Your task to perform on an android device: add a contact in the contacts app Image 0: 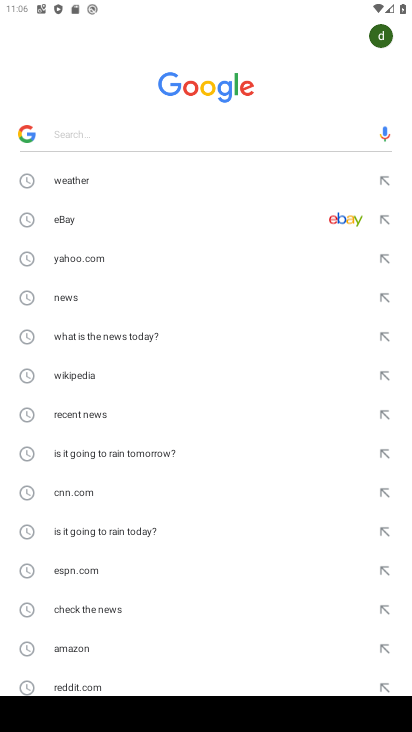
Step 0: press home button
Your task to perform on an android device: add a contact in the contacts app Image 1: 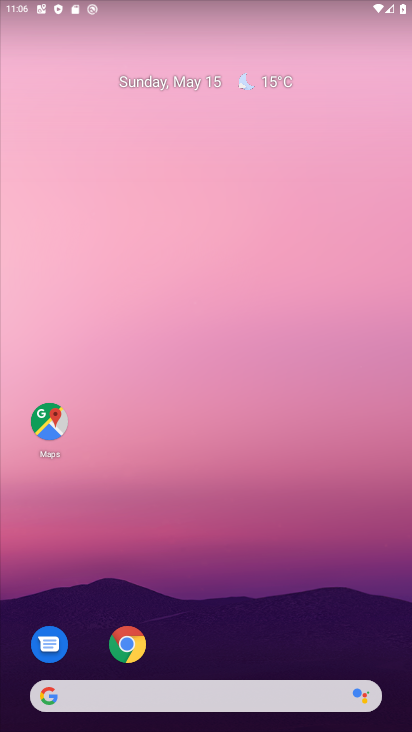
Step 1: drag from (266, 585) to (272, 93)
Your task to perform on an android device: add a contact in the contacts app Image 2: 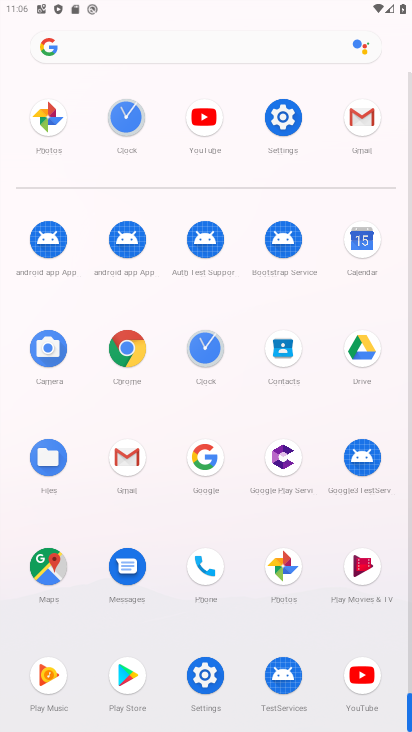
Step 2: click (276, 361)
Your task to perform on an android device: add a contact in the contacts app Image 3: 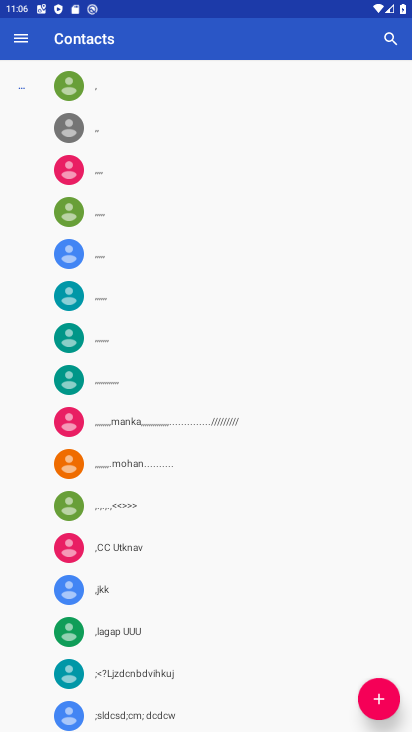
Step 3: click (380, 690)
Your task to perform on an android device: add a contact in the contacts app Image 4: 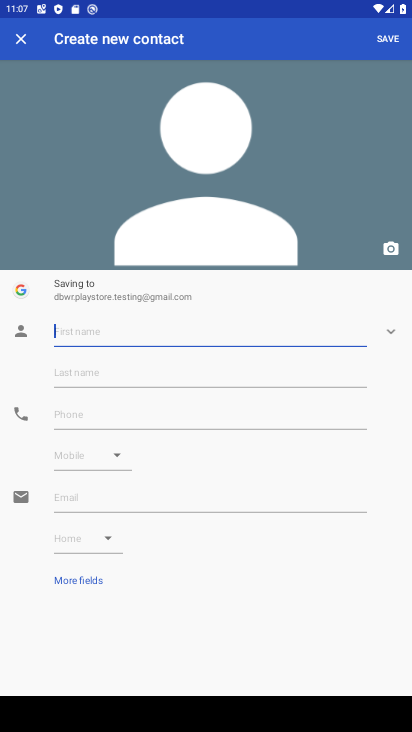
Step 4: type "errerr"
Your task to perform on an android device: add a contact in the contacts app Image 5: 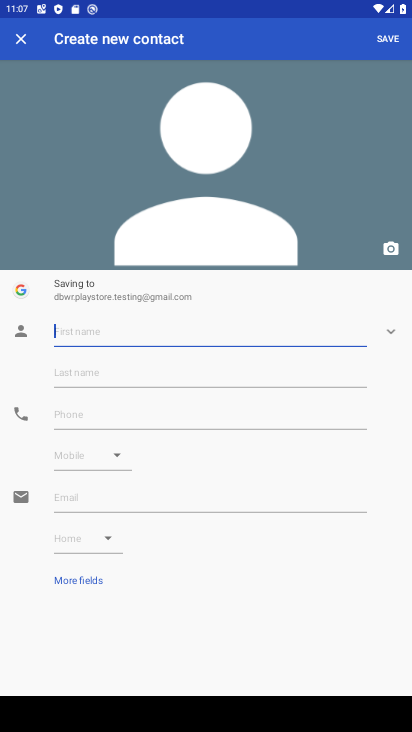
Step 5: click (146, 403)
Your task to perform on an android device: add a contact in the contacts app Image 6: 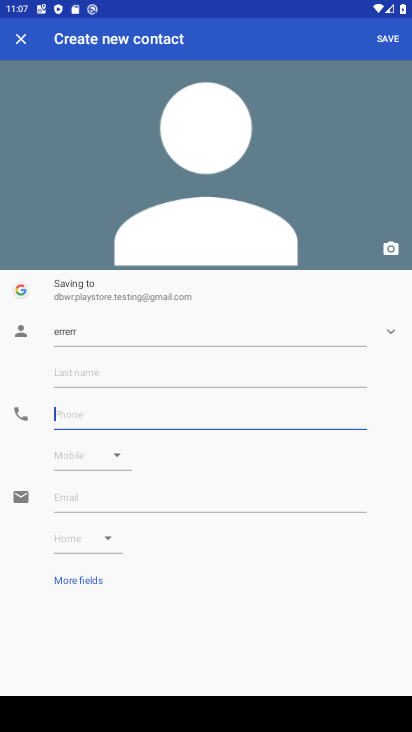
Step 6: type "5555544444"
Your task to perform on an android device: add a contact in the contacts app Image 7: 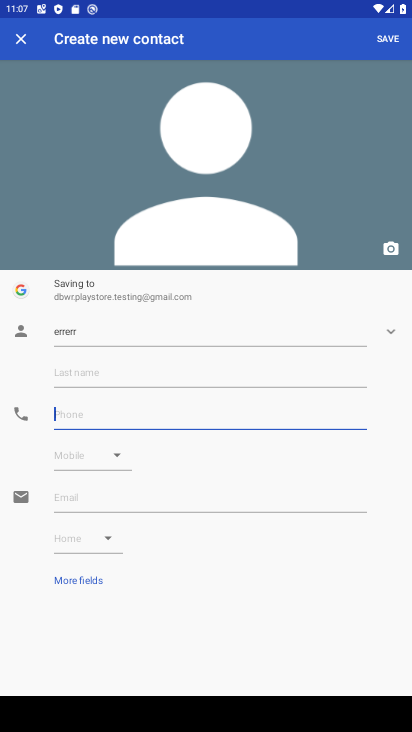
Step 7: click (385, 35)
Your task to perform on an android device: add a contact in the contacts app Image 8: 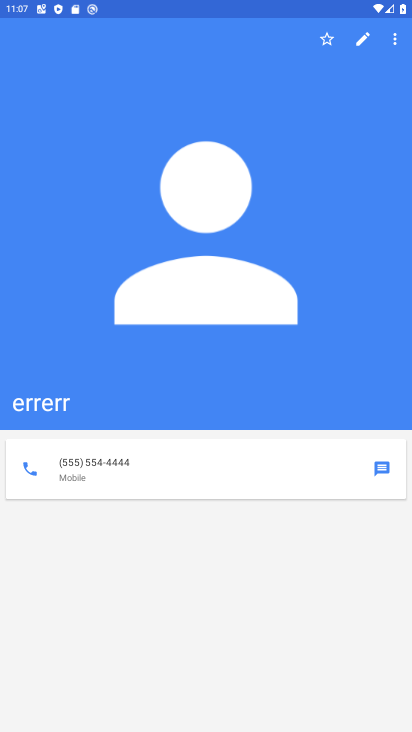
Step 8: task complete